Your task to perform on an android device: turn on location history Image 0: 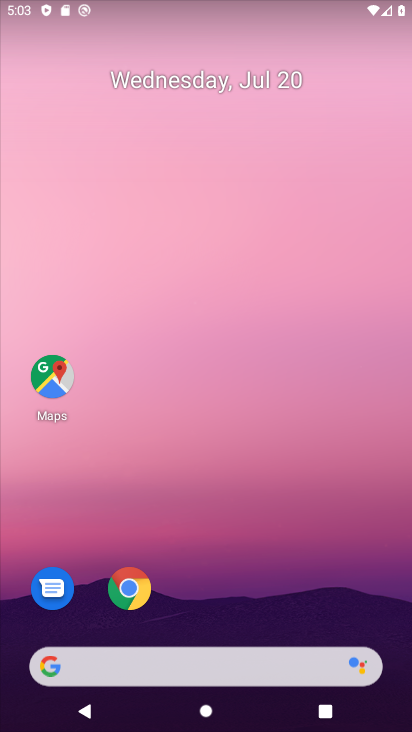
Step 0: drag from (165, 611) to (128, 11)
Your task to perform on an android device: turn on location history Image 1: 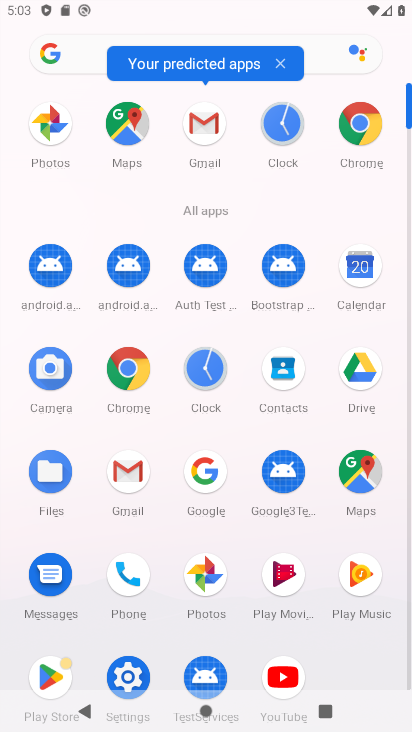
Step 1: click (129, 665)
Your task to perform on an android device: turn on location history Image 2: 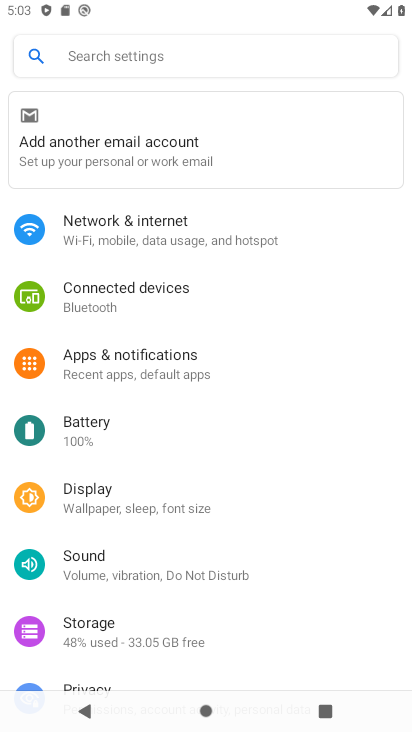
Step 2: drag from (120, 628) to (219, 243)
Your task to perform on an android device: turn on location history Image 3: 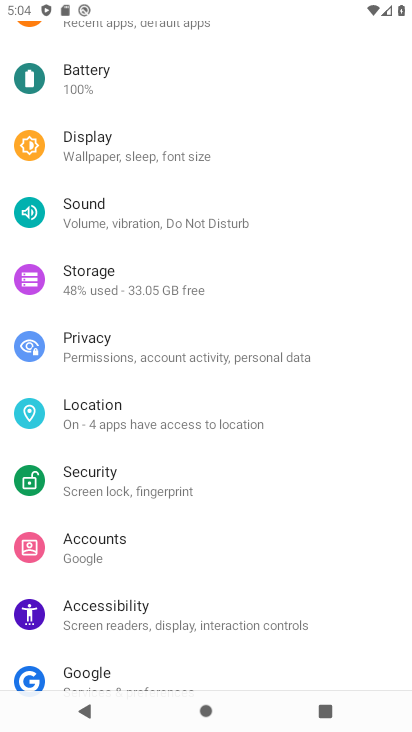
Step 3: click (125, 411)
Your task to perform on an android device: turn on location history Image 4: 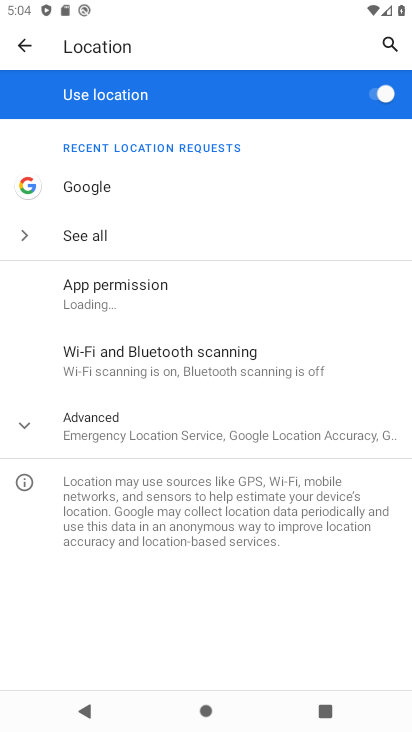
Step 4: click (168, 431)
Your task to perform on an android device: turn on location history Image 5: 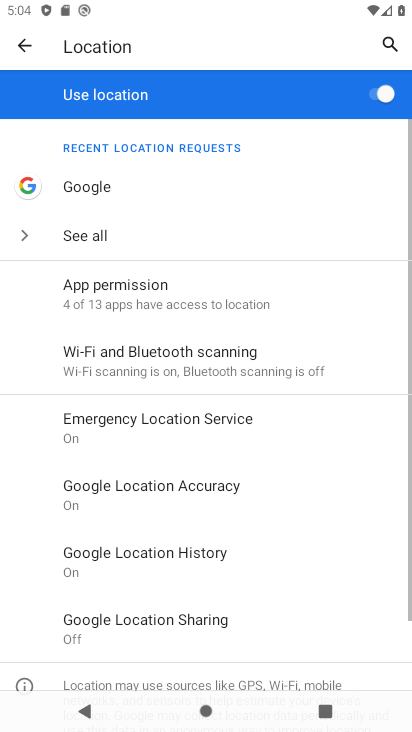
Step 5: click (158, 549)
Your task to perform on an android device: turn on location history Image 6: 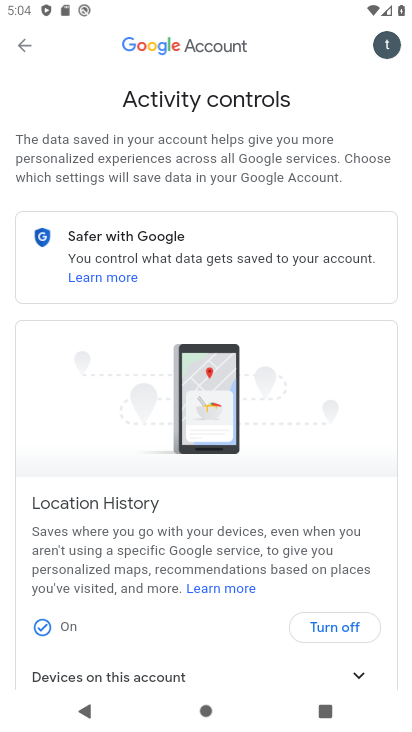
Step 6: task complete